Your task to perform on an android device: Open Wikipedia Image 0: 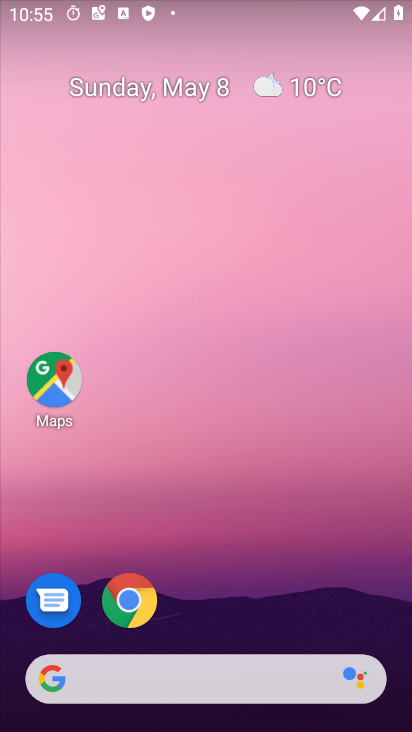
Step 0: drag from (233, 518) to (262, 43)
Your task to perform on an android device: Open Wikipedia Image 1: 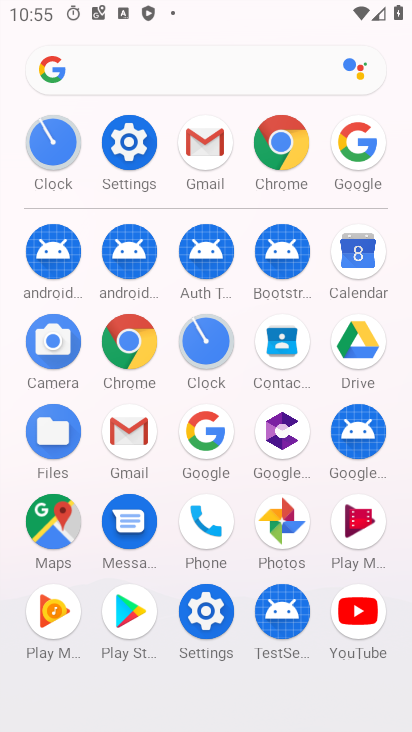
Step 1: click (284, 154)
Your task to perform on an android device: Open Wikipedia Image 2: 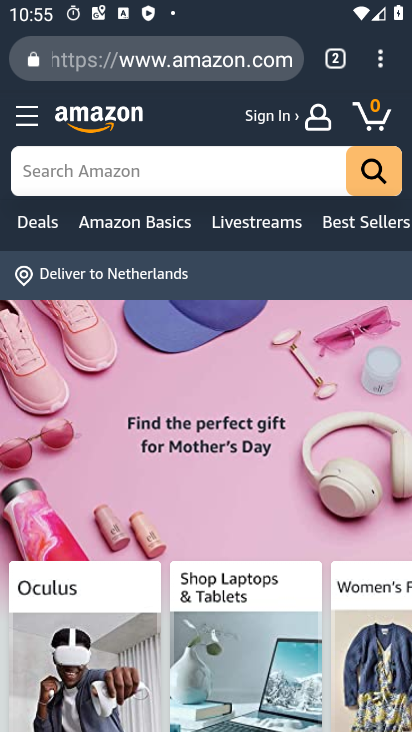
Step 2: click (276, 62)
Your task to perform on an android device: Open Wikipedia Image 3: 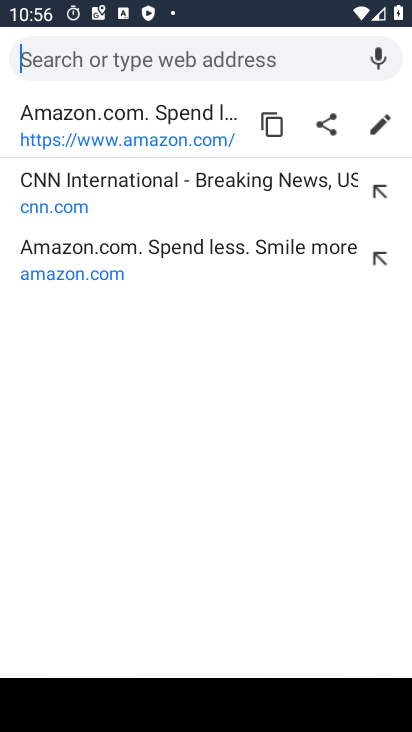
Step 3: type "wikipedia"
Your task to perform on an android device: Open Wikipedia Image 4: 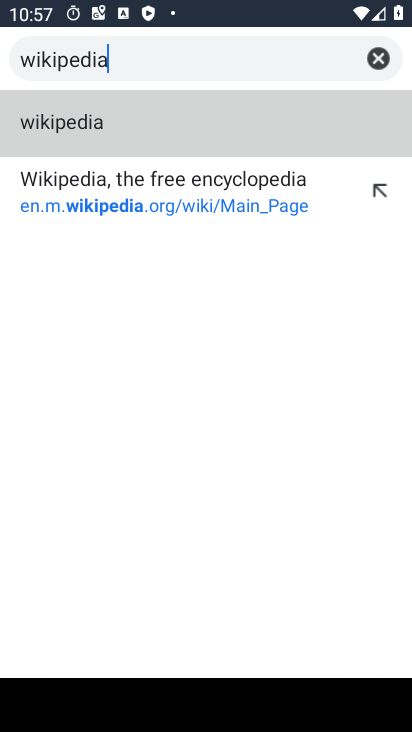
Step 4: click (203, 215)
Your task to perform on an android device: Open Wikipedia Image 5: 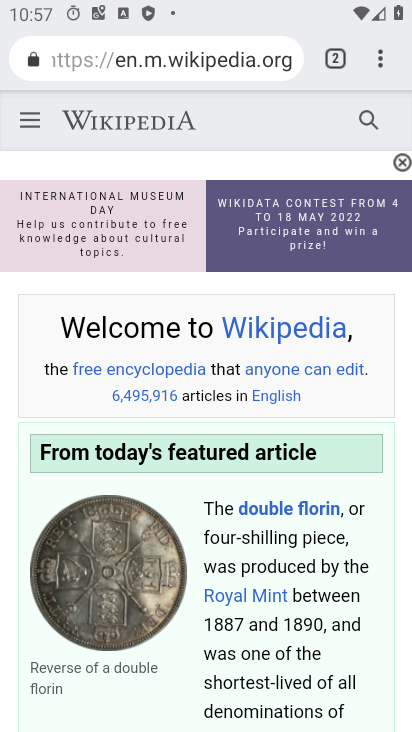
Step 5: task complete